Your task to perform on an android device: Open accessibility settings Image 0: 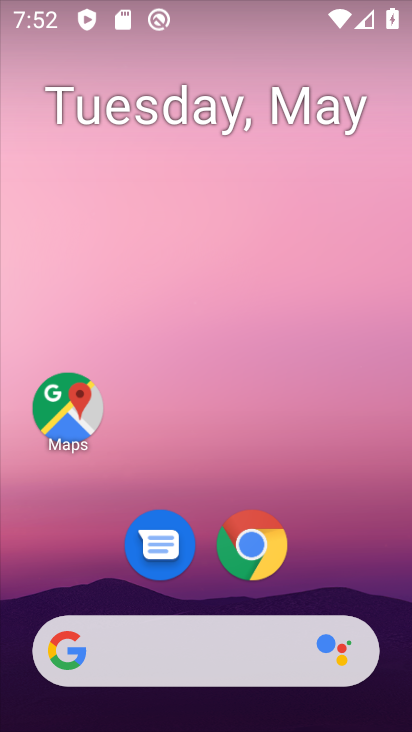
Step 0: drag from (205, 574) to (254, 107)
Your task to perform on an android device: Open accessibility settings Image 1: 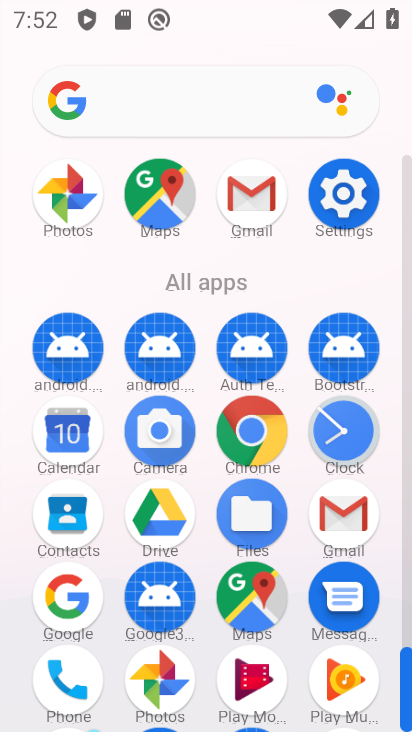
Step 1: click (349, 222)
Your task to perform on an android device: Open accessibility settings Image 2: 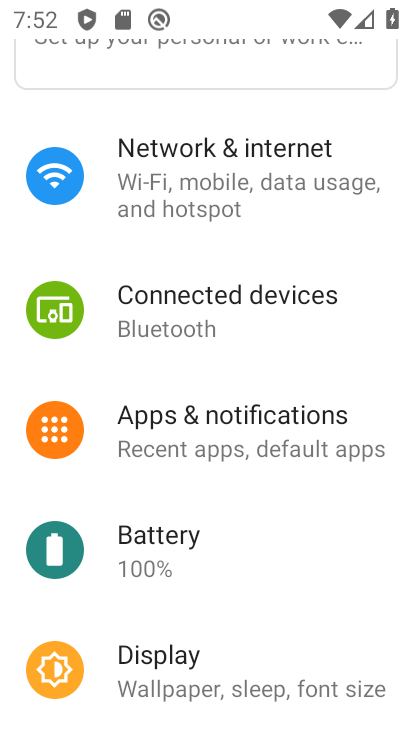
Step 2: drag from (262, 612) to (285, 321)
Your task to perform on an android device: Open accessibility settings Image 3: 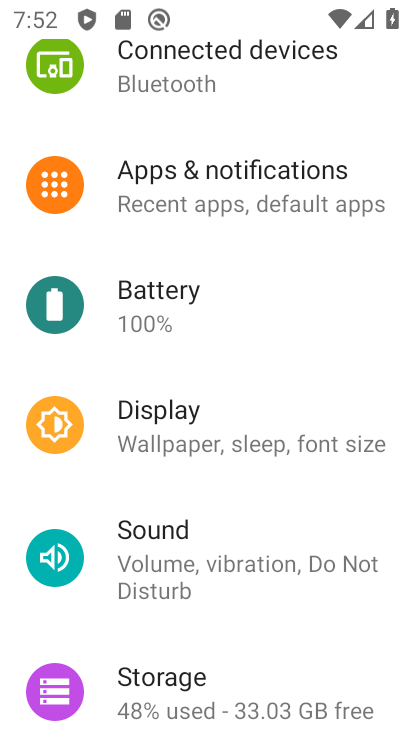
Step 3: drag from (255, 645) to (262, 378)
Your task to perform on an android device: Open accessibility settings Image 4: 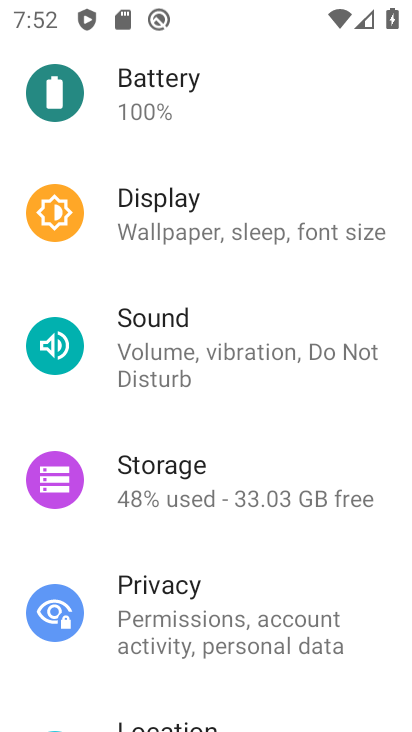
Step 4: drag from (238, 600) to (238, 370)
Your task to perform on an android device: Open accessibility settings Image 5: 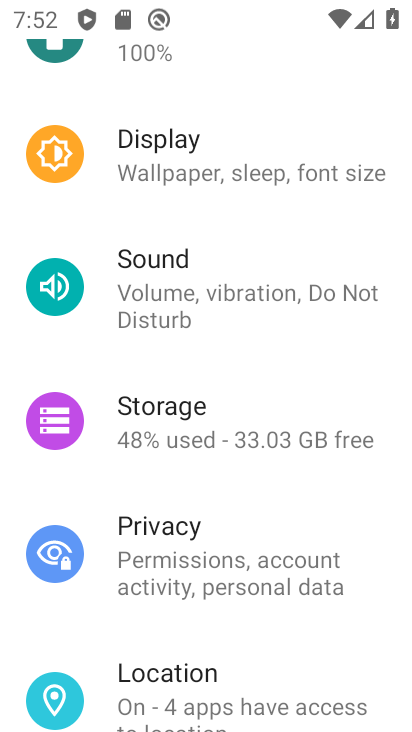
Step 5: drag from (213, 588) to (213, 356)
Your task to perform on an android device: Open accessibility settings Image 6: 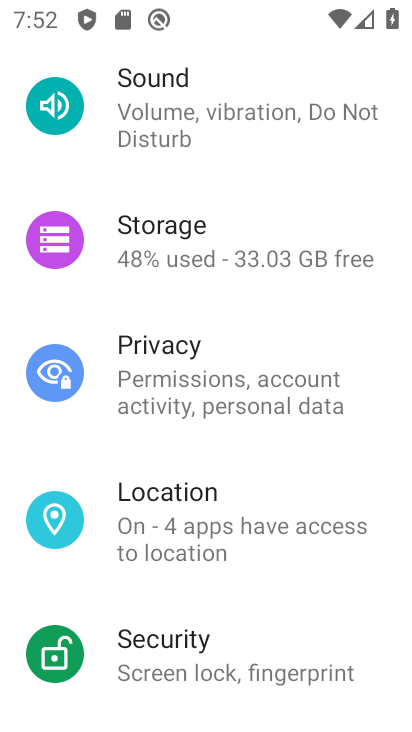
Step 6: drag from (240, 522) to (251, 266)
Your task to perform on an android device: Open accessibility settings Image 7: 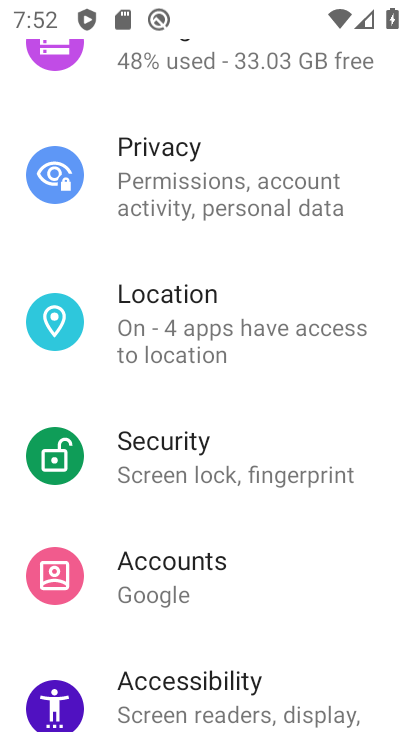
Step 7: click (214, 664)
Your task to perform on an android device: Open accessibility settings Image 8: 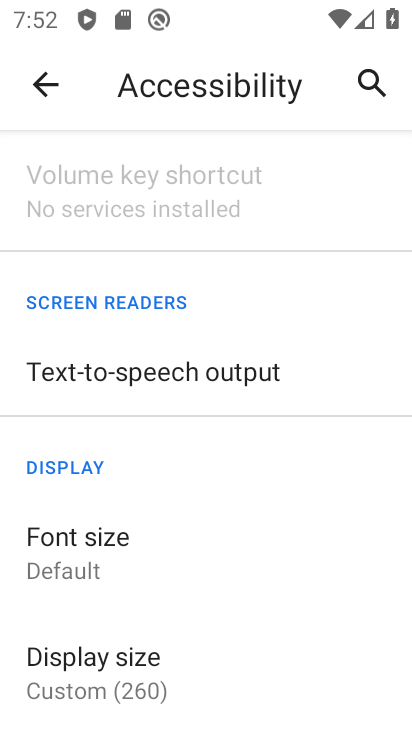
Step 8: task complete